Your task to perform on an android device: Go to ESPN.com Image 0: 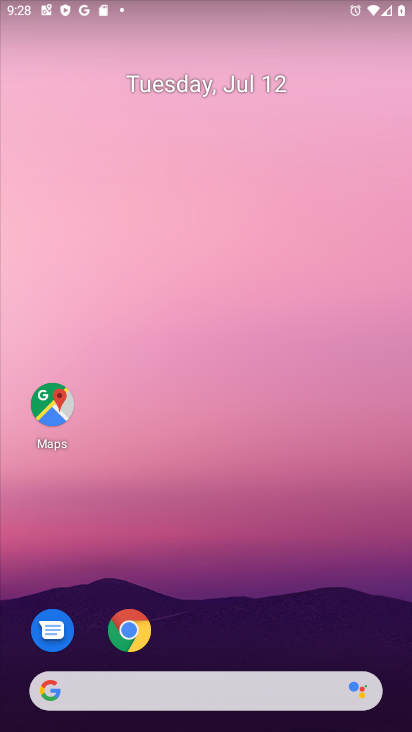
Step 0: drag from (241, 634) to (238, 127)
Your task to perform on an android device: Go to ESPN.com Image 1: 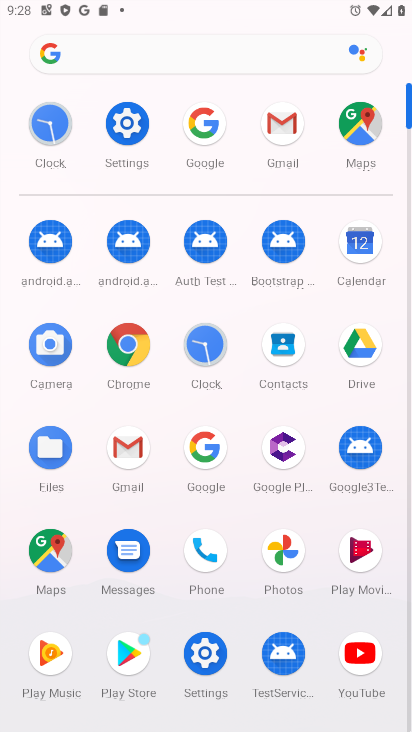
Step 1: click (203, 118)
Your task to perform on an android device: Go to ESPN.com Image 2: 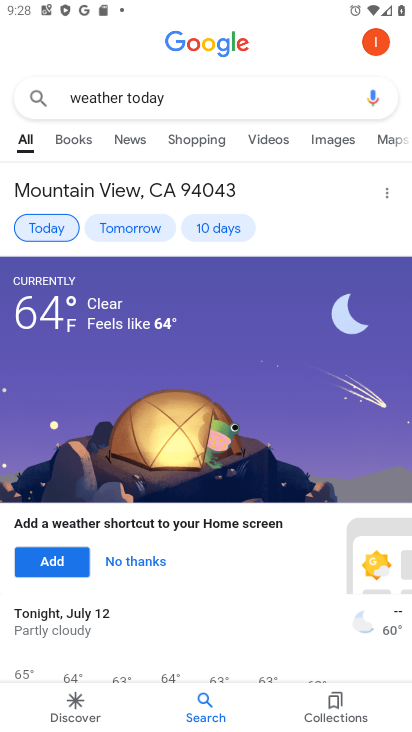
Step 2: click (215, 101)
Your task to perform on an android device: Go to ESPN.com Image 3: 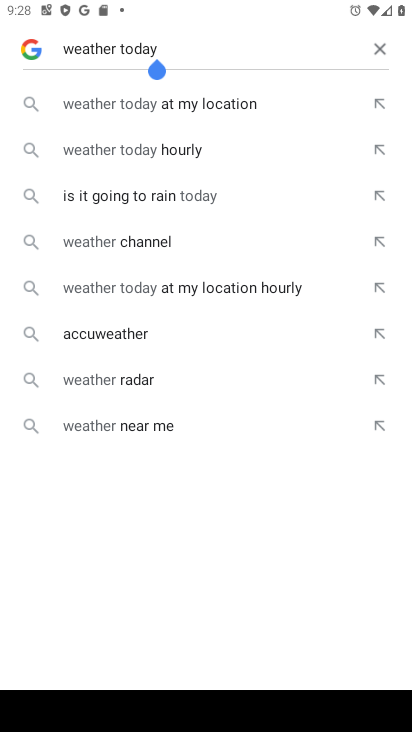
Step 3: click (374, 50)
Your task to perform on an android device: Go to ESPN.com Image 4: 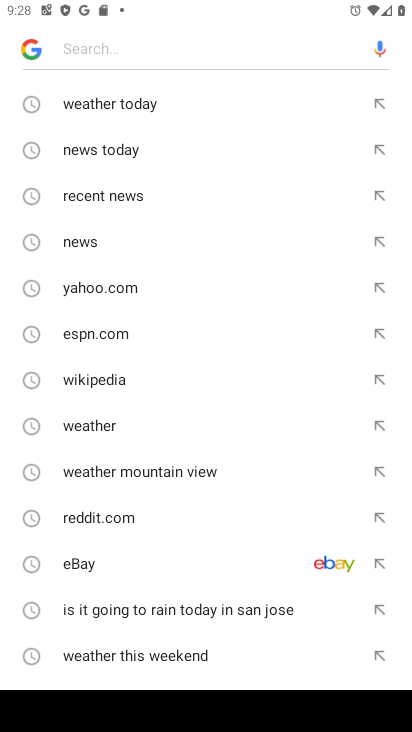
Step 4: click (122, 340)
Your task to perform on an android device: Go to ESPN.com Image 5: 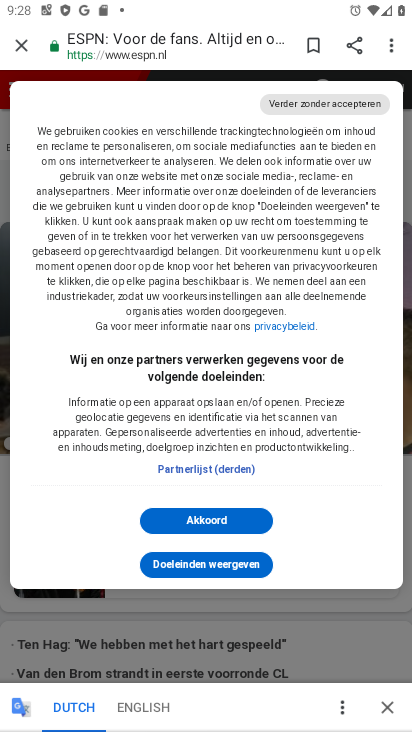
Step 5: task complete